Your task to perform on an android device: Go to battery settings Image 0: 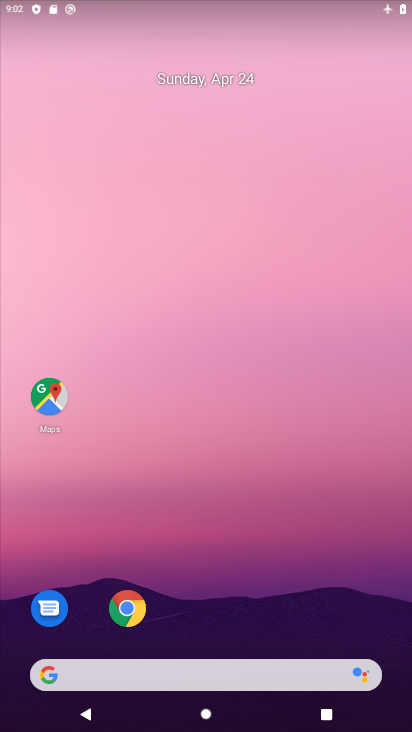
Step 0: drag from (209, 628) to (266, 160)
Your task to perform on an android device: Go to battery settings Image 1: 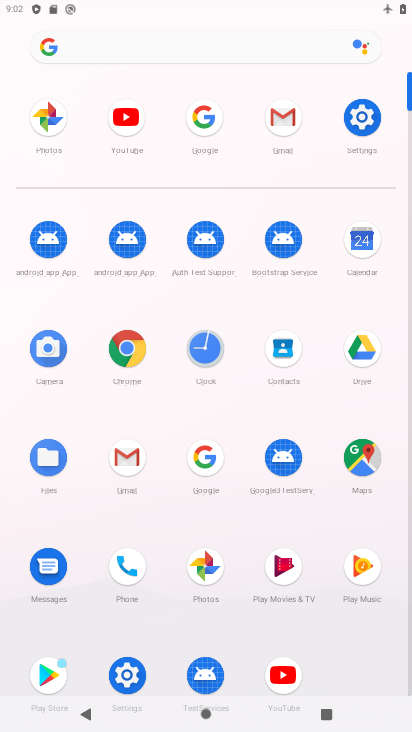
Step 1: click (360, 128)
Your task to perform on an android device: Go to battery settings Image 2: 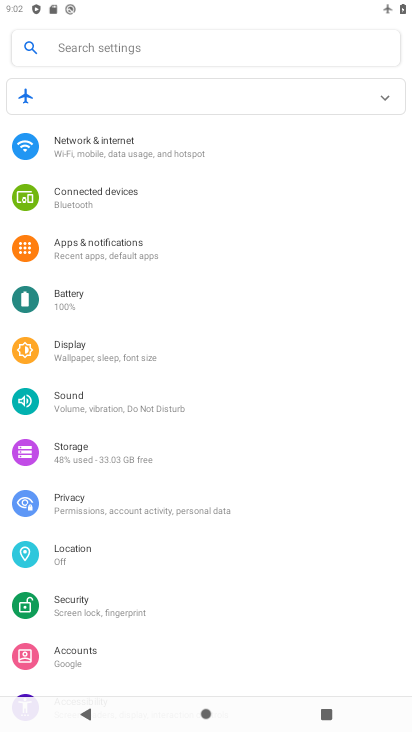
Step 2: click (121, 293)
Your task to perform on an android device: Go to battery settings Image 3: 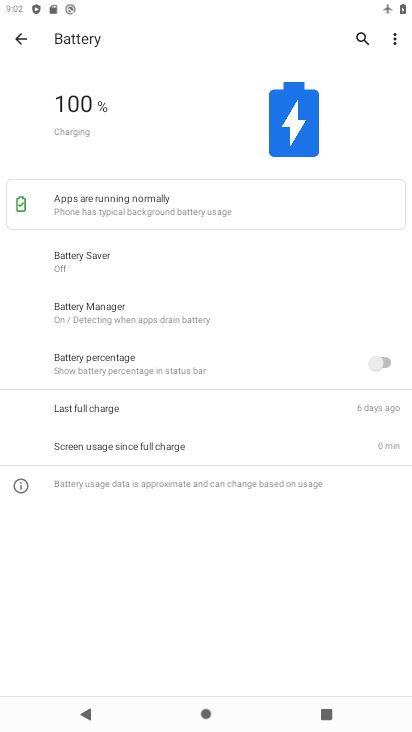
Step 3: task complete